Your task to perform on an android device: turn on the 12-hour format for clock Image 0: 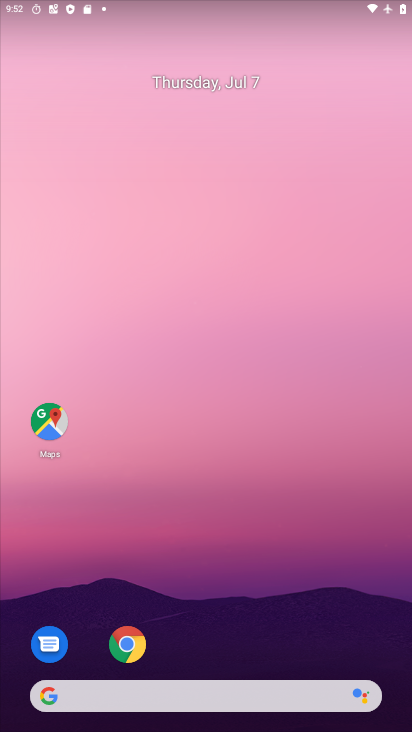
Step 0: drag from (283, 607) to (312, 42)
Your task to perform on an android device: turn on the 12-hour format for clock Image 1: 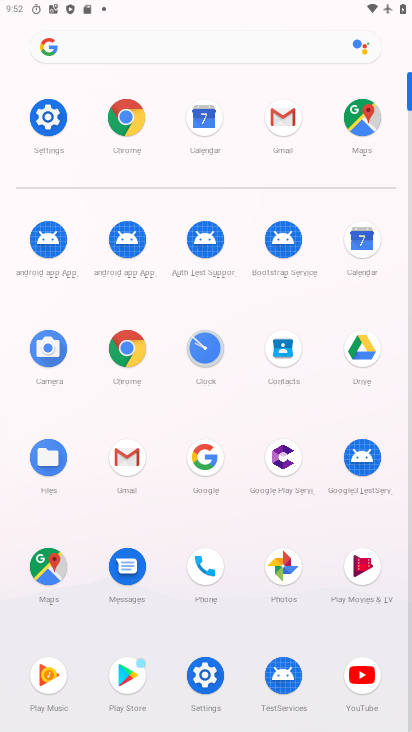
Step 1: click (210, 339)
Your task to perform on an android device: turn on the 12-hour format for clock Image 2: 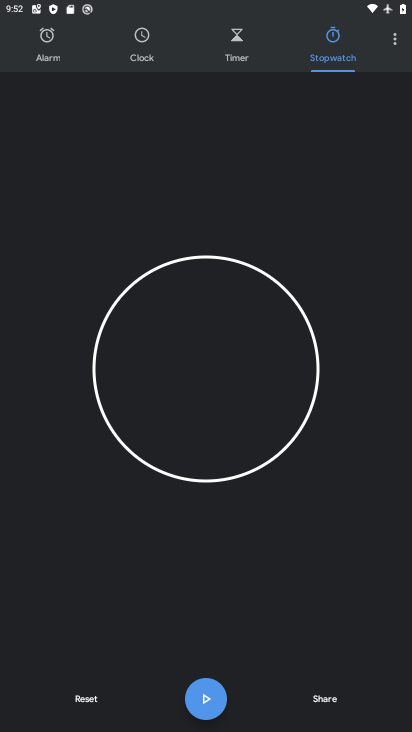
Step 2: click (394, 35)
Your task to perform on an android device: turn on the 12-hour format for clock Image 3: 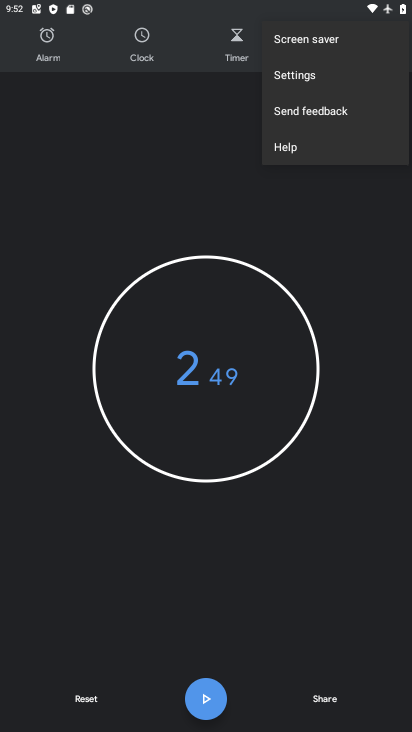
Step 3: click (303, 82)
Your task to perform on an android device: turn on the 12-hour format for clock Image 4: 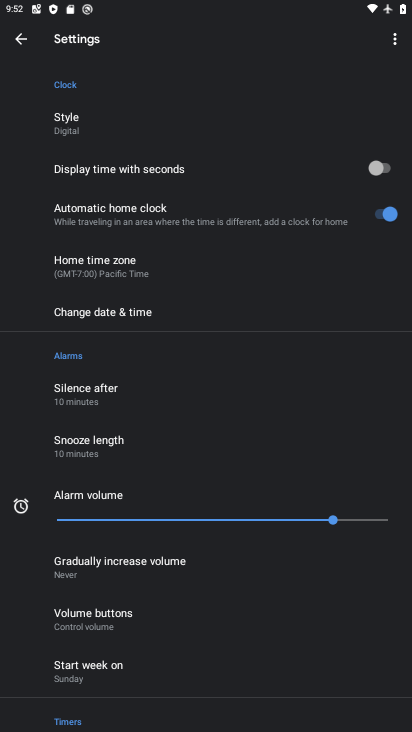
Step 4: drag from (233, 707) to (287, 95)
Your task to perform on an android device: turn on the 12-hour format for clock Image 5: 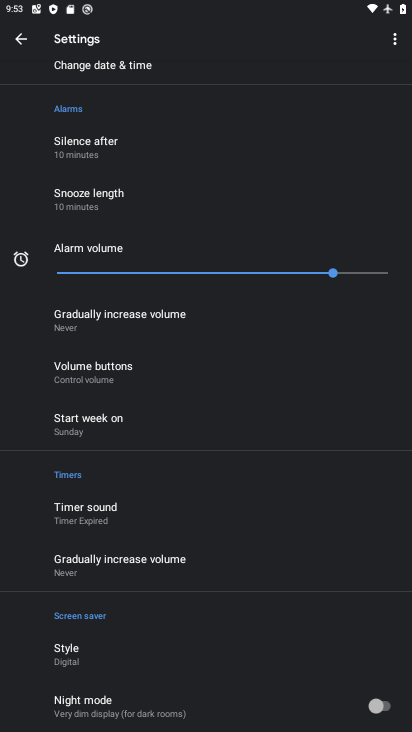
Step 5: drag from (200, 652) to (203, 267)
Your task to perform on an android device: turn on the 12-hour format for clock Image 6: 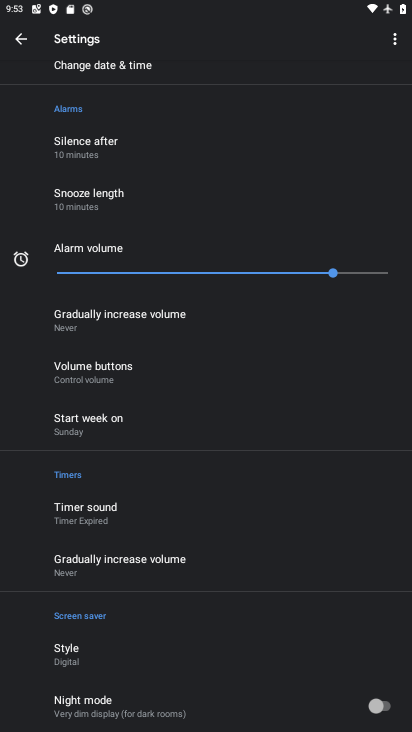
Step 6: drag from (198, 166) to (162, 580)
Your task to perform on an android device: turn on the 12-hour format for clock Image 7: 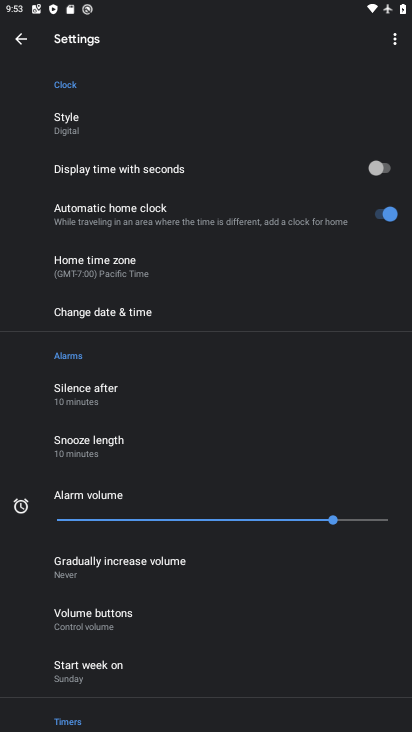
Step 7: click (116, 311)
Your task to perform on an android device: turn on the 12-hour format for clock Image 8: 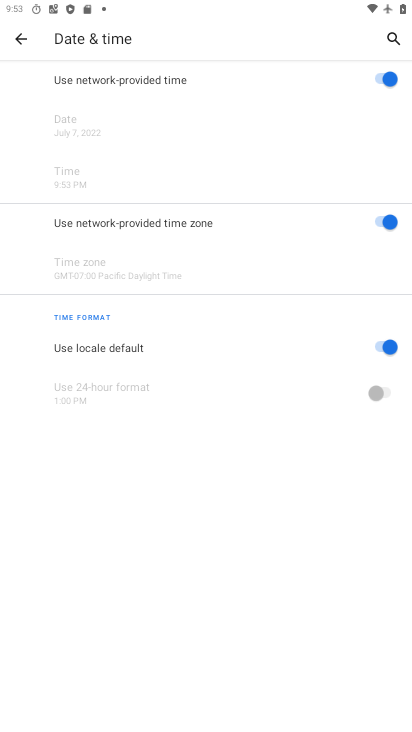
Step 8: task complete